Your task to perform on an android device: snooze an email in the gmail app Image 0: 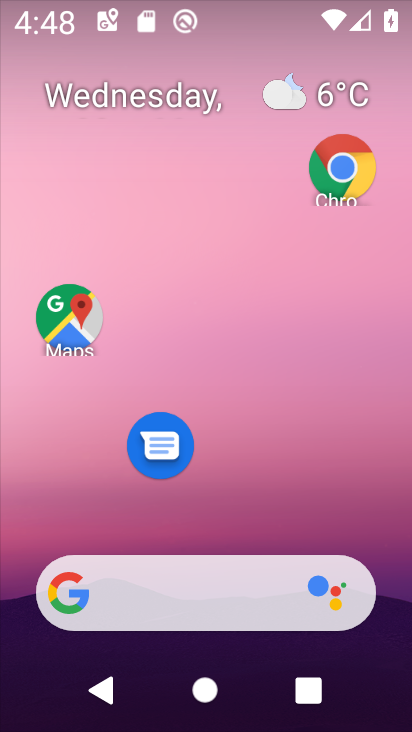
Step 0: drag from (216, 520) to (245, 19)
Your task to perform on an android device: snooze an email in the gmail app Image 1: 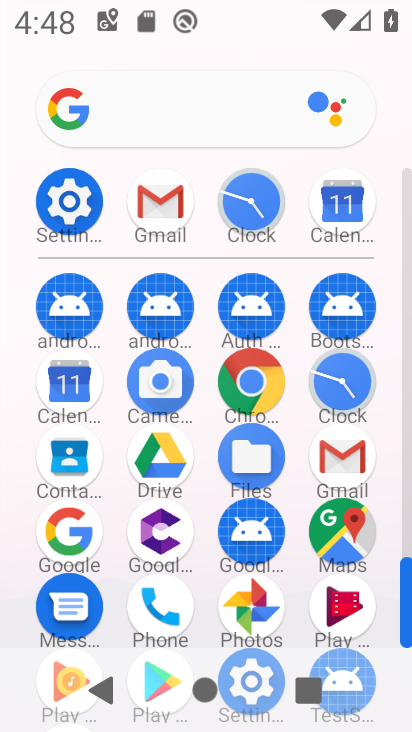
Step 1: drag from (236, 557) to (236, 465)
Your task to perform on an android device: snooze an email in the gmail app Image 2: 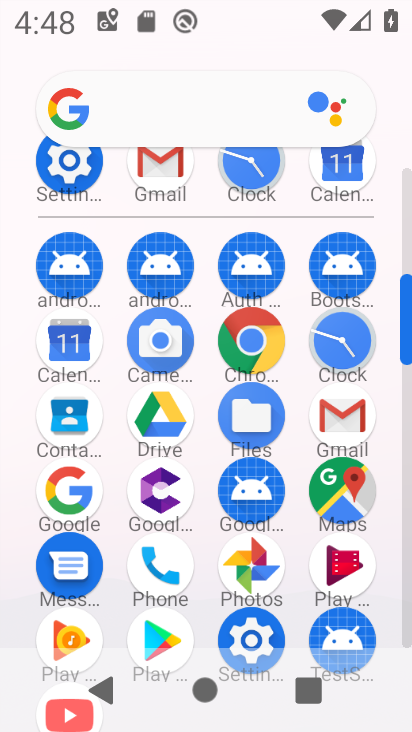
Step 2: click (342, 392)
Your task to perform on an android device: snooze an email in the gmail app Image 3: 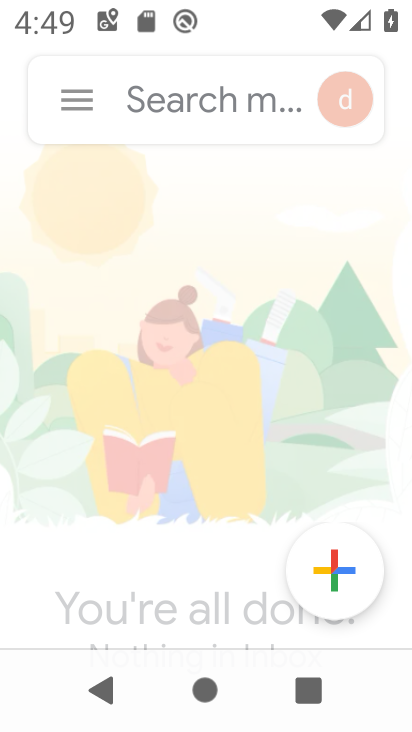
Step 3: click (60, 100)
Your task to perform on an android device: snooze an email in the gmail app Image 4: 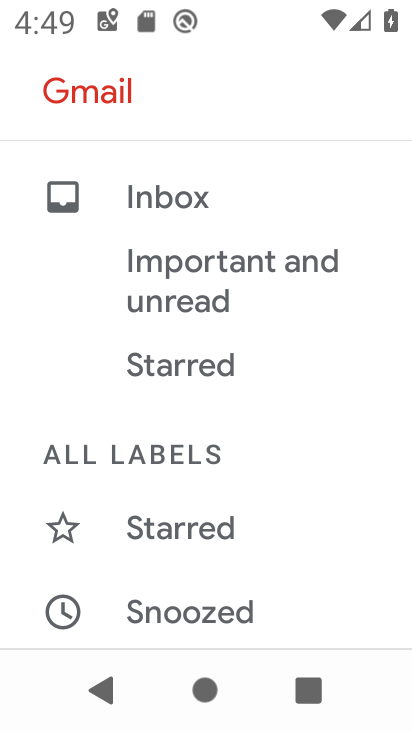
Step 4: drag from (164, 544) to (229, 147)
Your task to perform on an android device: snooze an email in the gmail app Image 5: 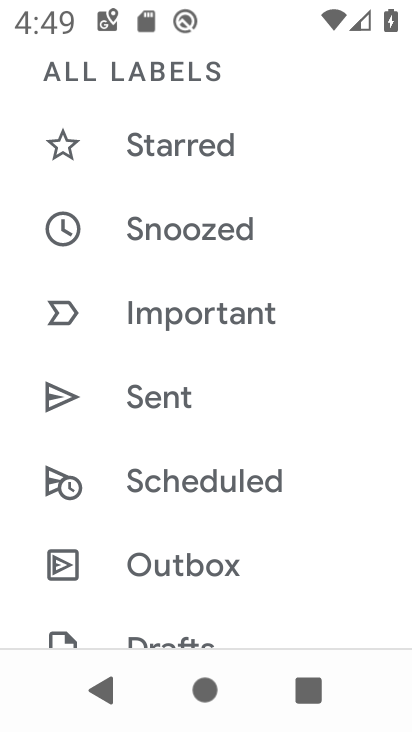
Step 5: drag from (260, 604) to (277, 274)
Your task to perform on an android device: snooze an email in the gmail app Image 6: 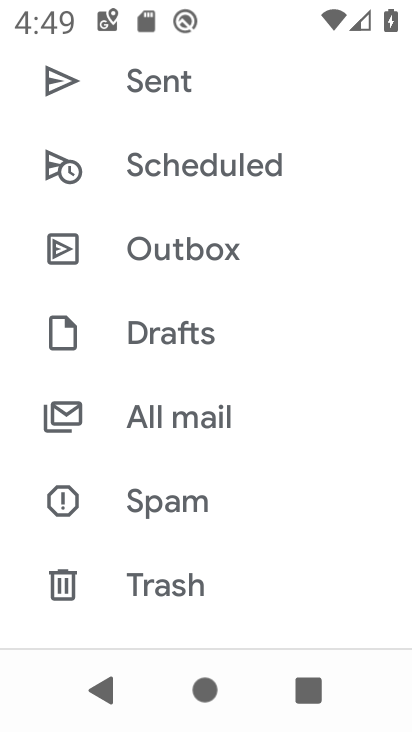
Step 6: click (204, 427)
Your task to perform on an android device: snooze an email in the gmail app Image 7: 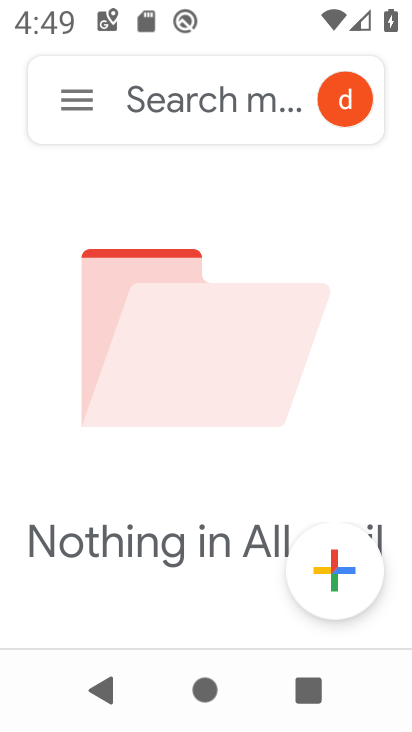
Step 7: task complete